Your task to perform on an android device: Open calendar and show me the first week of next month Image 0: 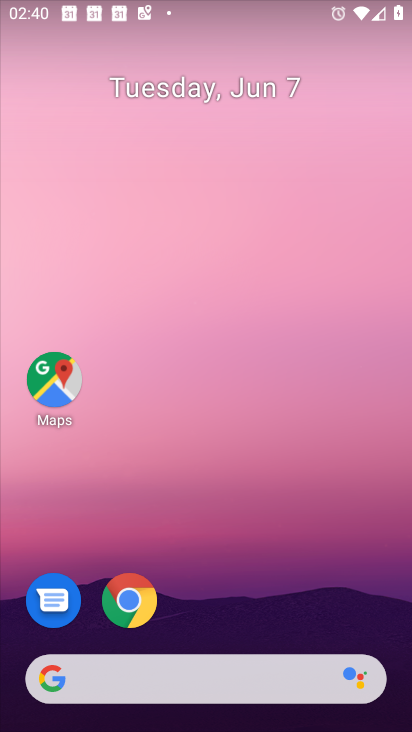
Step 0: drag from (216, 643) to (223, 133)
Your task to perform on an android device: Open calendar and show me the first week of next month Image 1: 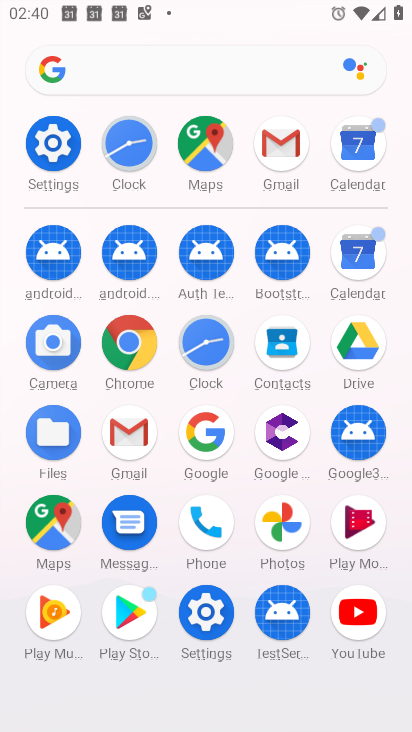
Step 1: click (356, 251)
Your task to perform on an android device: Open calendar and show me the first week of next month Image 2: 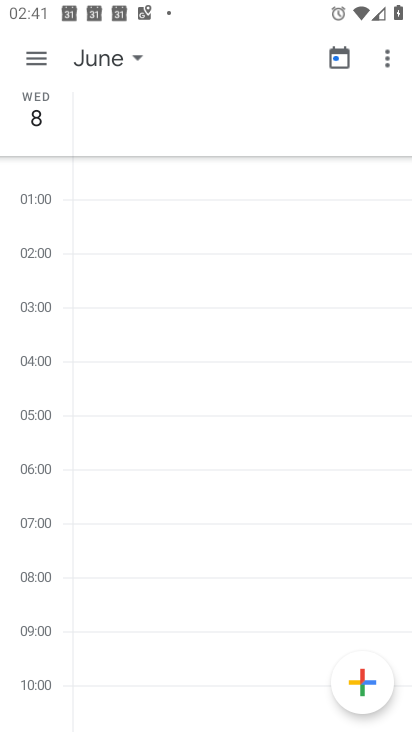
Step 2: click (124, 58)
Your task to perform on an android device: Open calendar and show me the first week of next month Image 3: 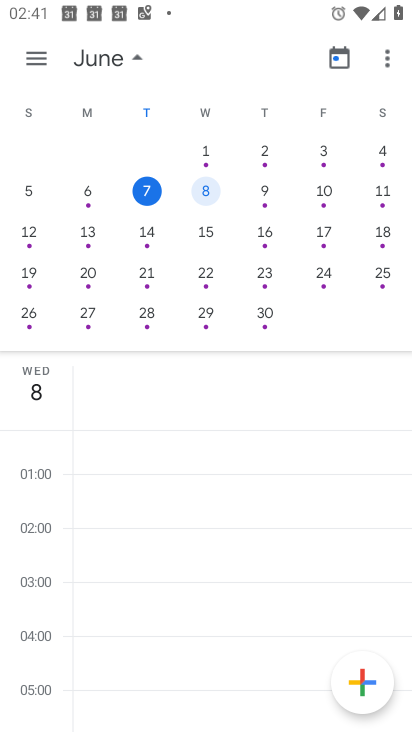
Step 3: drag from (361, 232) to (40, 212)
Your task to perform on an android device: Open calendar and show me the first week of next month Image 4: 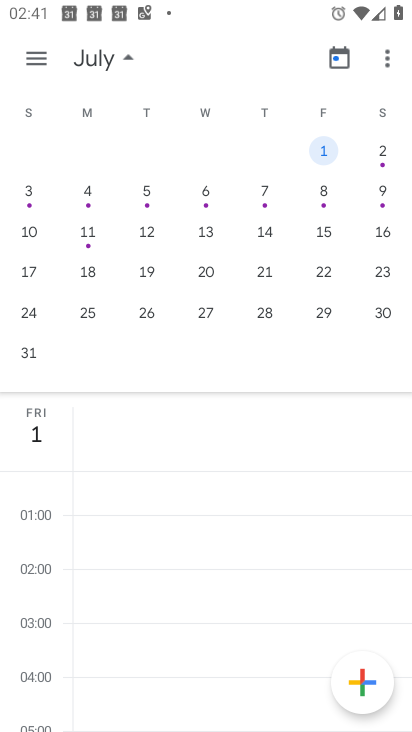
Step 4: click (92, 190)
Your task to perform on an android device: Open calendar and show me the first week of next month Image 5: 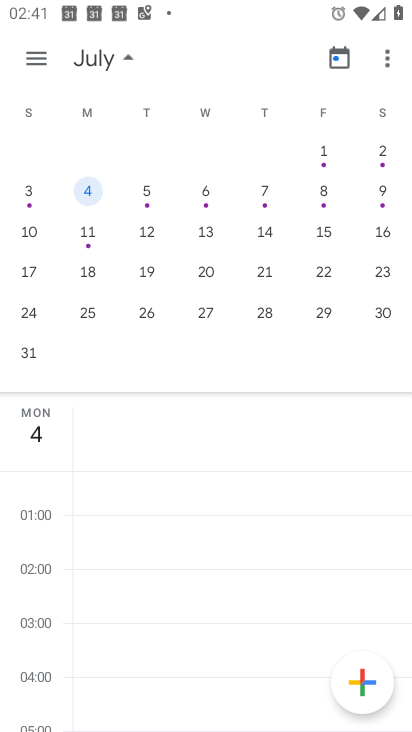
Step 5: click (33, 58)
Your task to perform on an android device: Open calendar and show me the first week of next month Image 6: 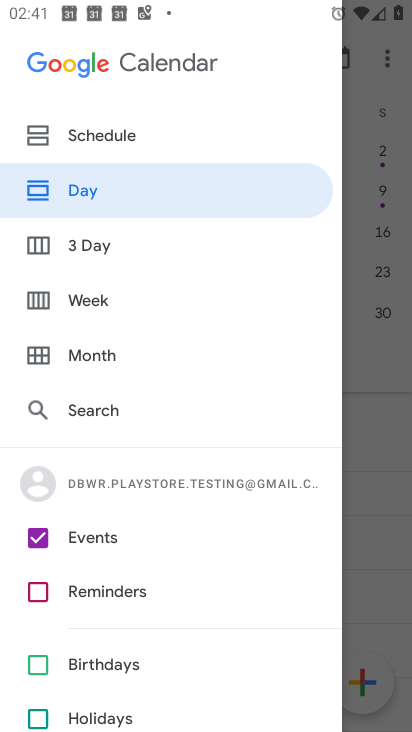
Step 6: click (75, 296)
Your task to perform on an android device: Open calendar and show me the first week of next month Image 7: 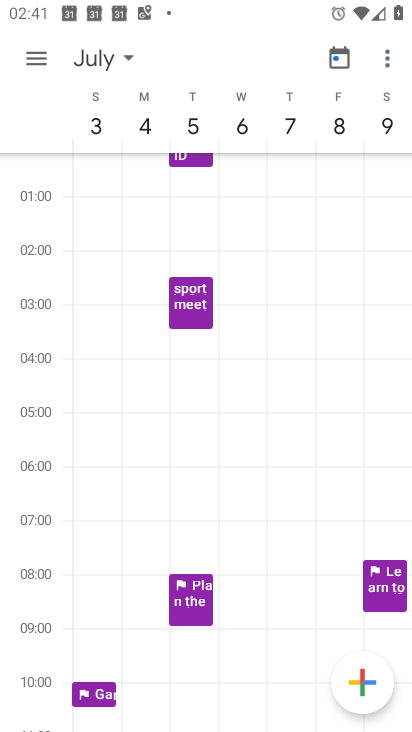
Step 7: task complete